Your task to perform on an android device: allow cookies in the chrome app Image 0: 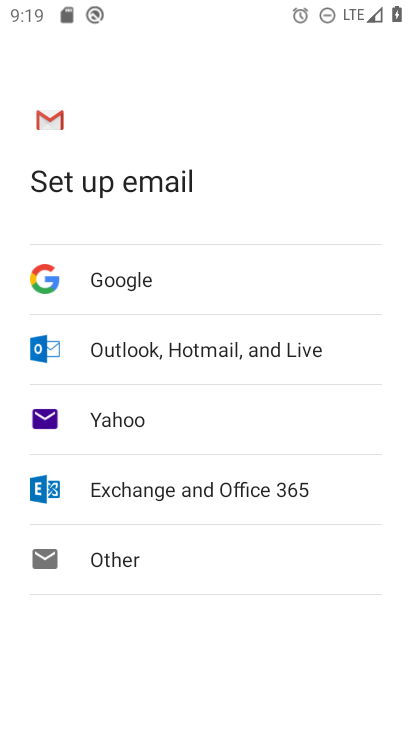
Step 0: press home button
Your task to perform on an android device: allow cookies in the chrome app Image 1: 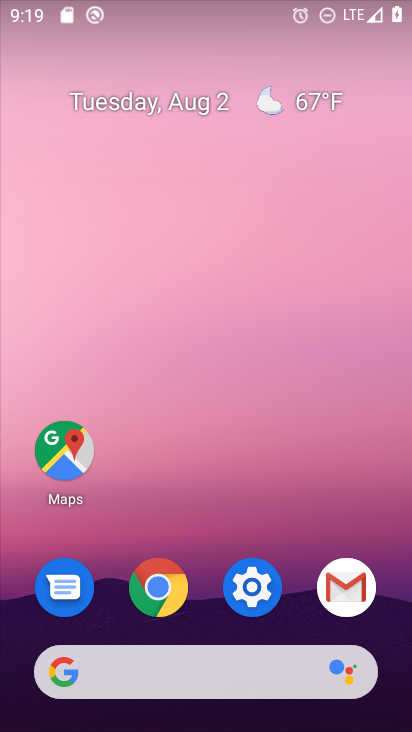
Step 1: click (163, 586)
Your task to perform on an android device: allow cookies in the chrome app Image 2: 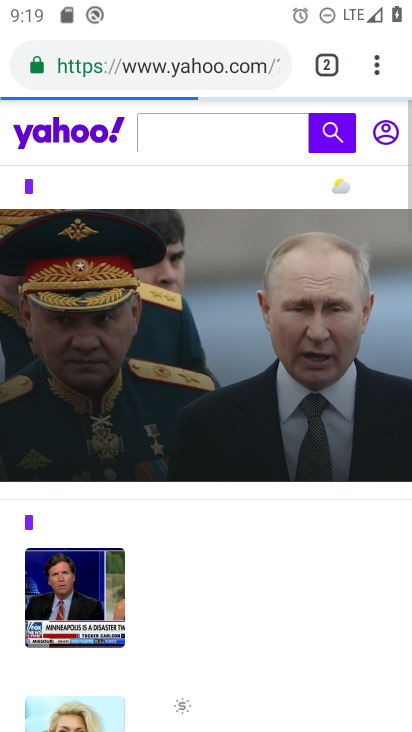
Step 2: click (383, 69)
Your task to perform on an android device: allow cookies in the chrome app Image 3: 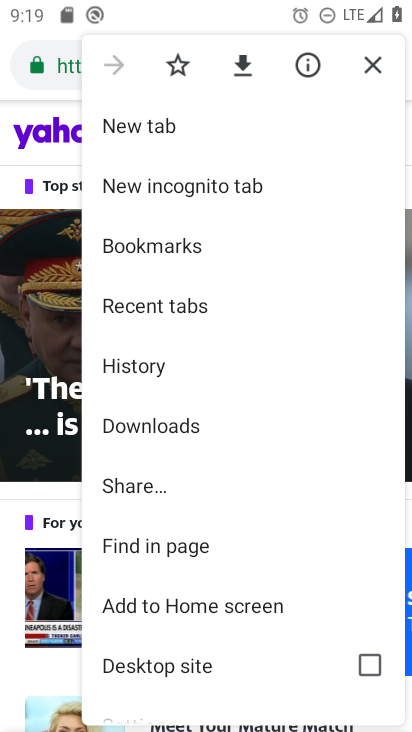
Step 3: drag from (173, 648) to (158, 387)
Your task to perform on an android device: allow cookies in the chrome app Image 4: 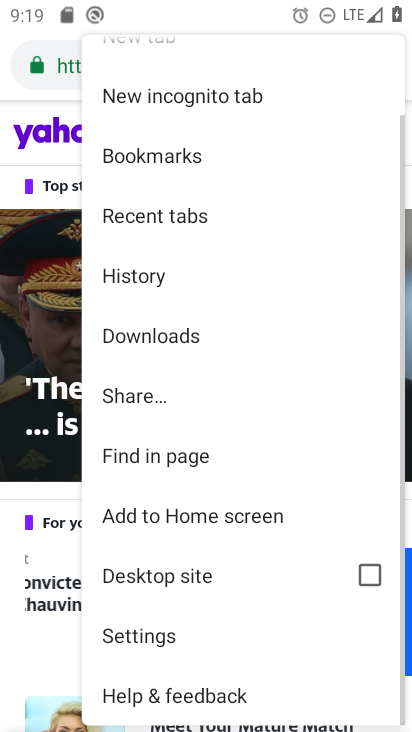
Step 4: click (173, 639)
Your task to perform on an android device: allow cookies in the chrome app Image 5: 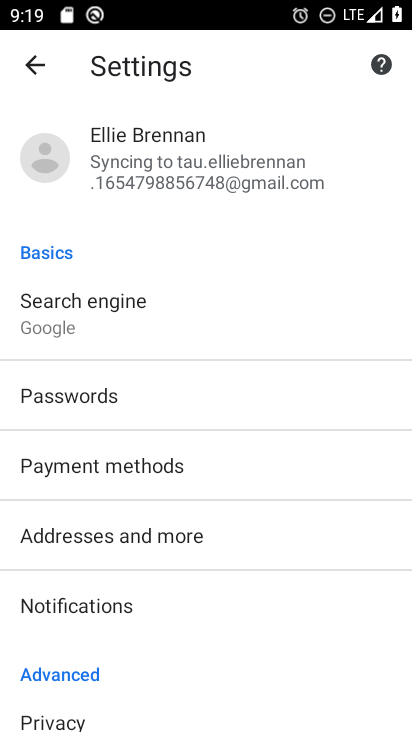
Step 5: drag from (177, 603) to (152, 319)
Your task to perform on an android device: allow cookies in the chrome app Image 6: 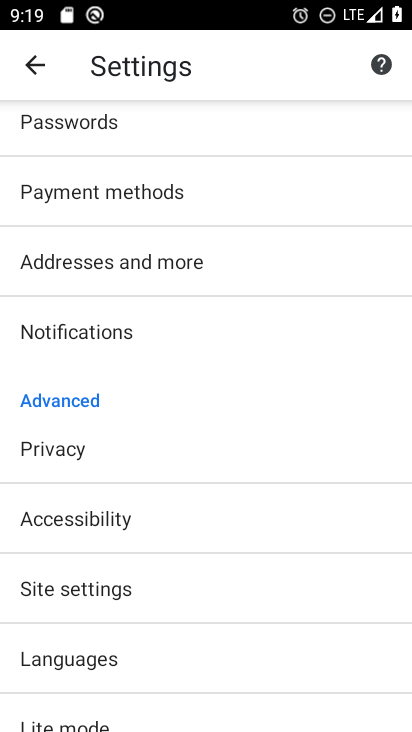
Step 6: click (103, 591)
Your task to perform on an android device: allow cookies in the chrome app Image 7: 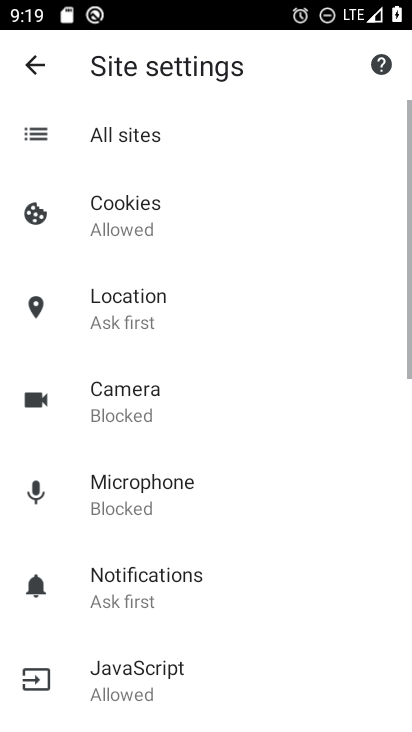
Step 7: click (147, 192)
Your task to perform on an android device: allow cookies in the chrome app Image 8: 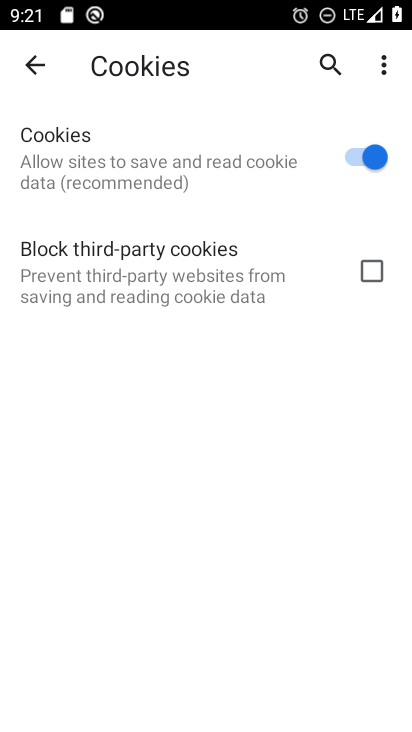
Step 8: task complete